Your task to perform on an android device: Go to Yahoo.com Image 0: 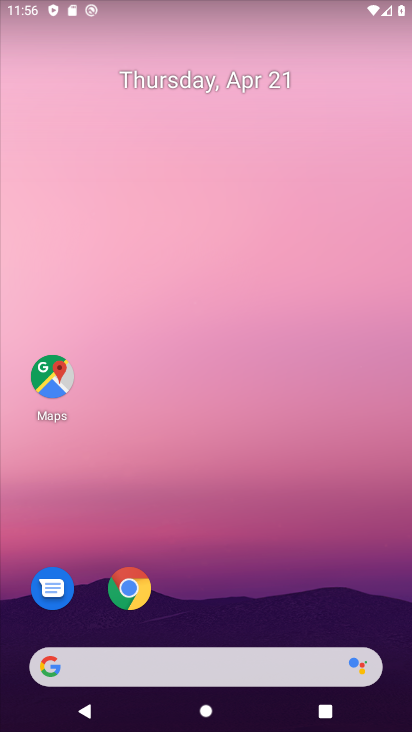
Step 0: drag from (319, 568) to (306, 93)
Your task to perform on an android device: Go to Yahoo.com Image 1: 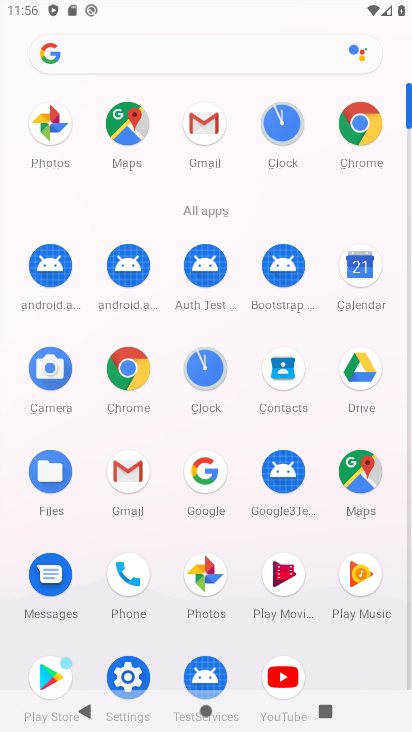
Step 1: click (126, 371)
Your task to perform on an android device: Go to Yahoo.com Image 2: 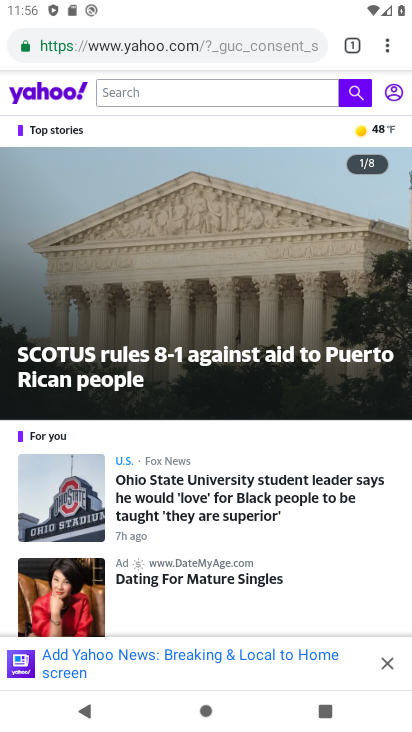
Step 2: task complete